Your task to perform on an android device: toggle sleep mode Image 0: 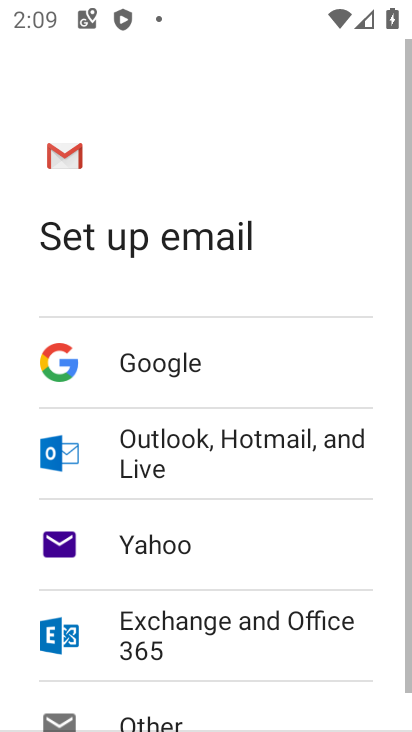
Step 0: press home button
Your task to perform on an android device: toggle sleep mode Image 1: 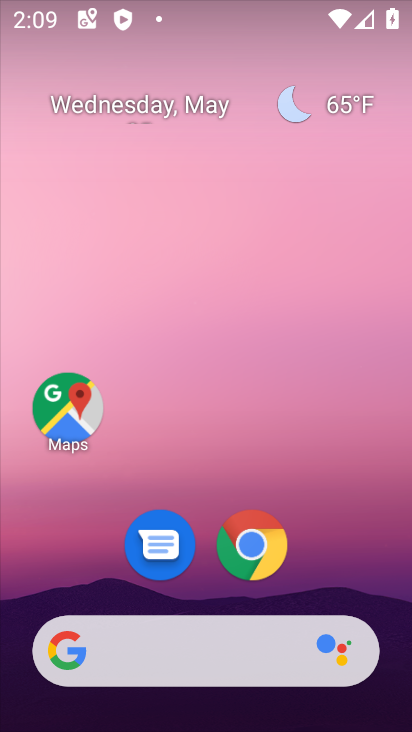
Step 1: drag from (353, 559) to (277, 16)
Your task to perform on an android device: toggle sleep mode Image 2: 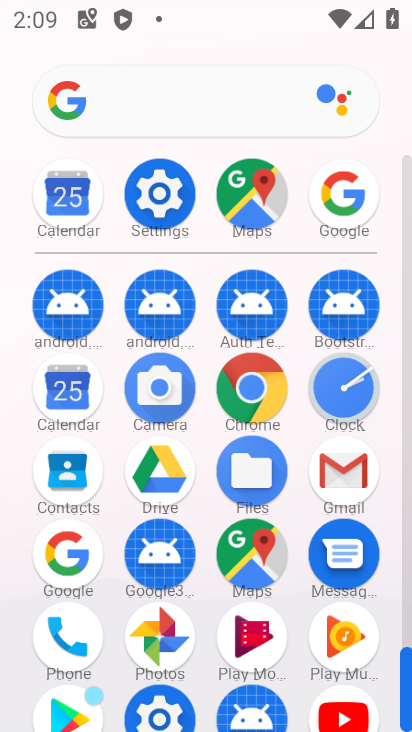
Step 2: click (176, 182)
Your task to perform on an android device: toggle sleep mode Image 3: 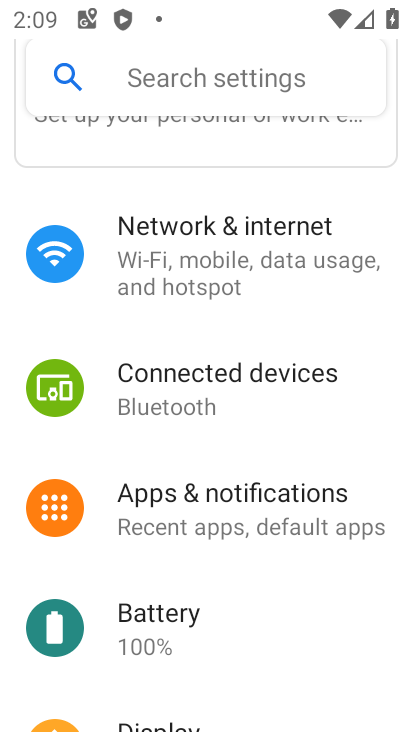
Step 3: click (235, 711)
Your task to perform on an android device: toggle sleep mode Image 4: 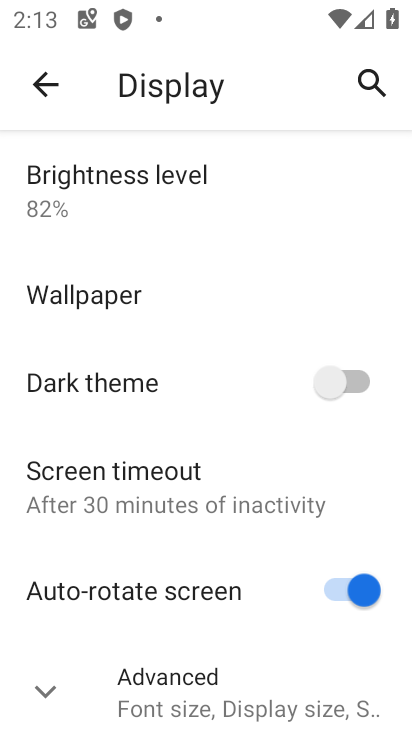
Step 4: task complete